Your task to perform on an android device: turn off notifications settings in the gmail app Image 0: 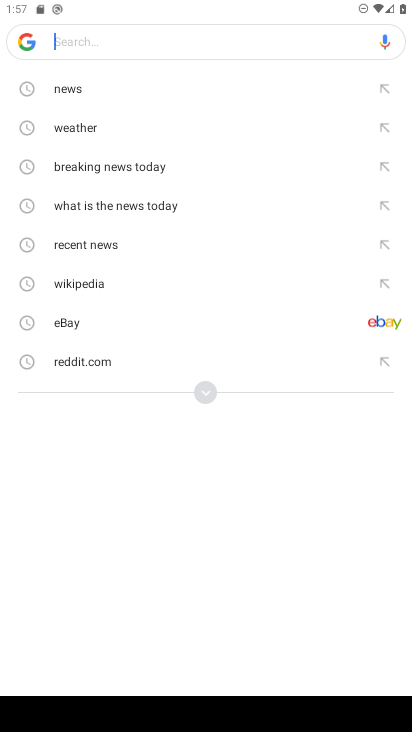
Step 0: press home button
Your task to perform on an android device: turn off notifications settings in the gmail app Image 1: 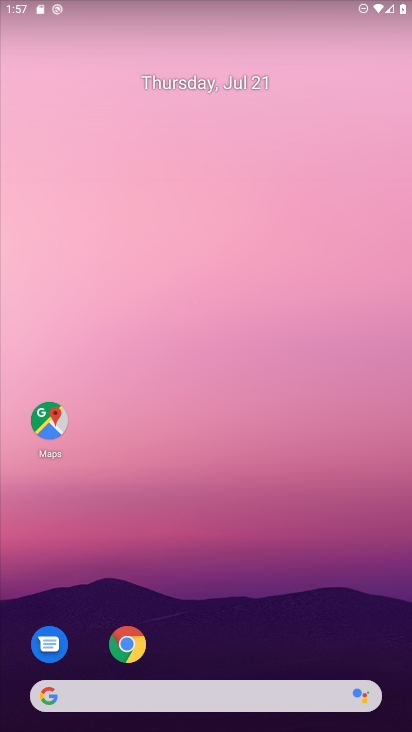
Step 1: drag from (219, 617) to (213, 7)
Your task to perform on an android device: turn off notifications settings in the gmail app Image 2: 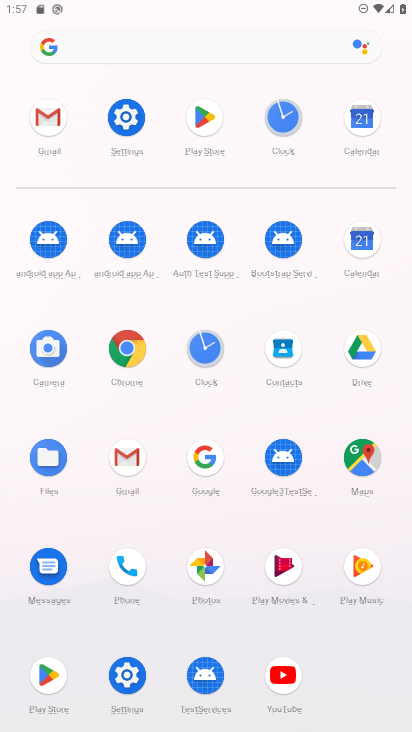
Step 2: click (40, 123)
Your task to perform on an android device: turn off notifications settings in the gmail app Image 3: 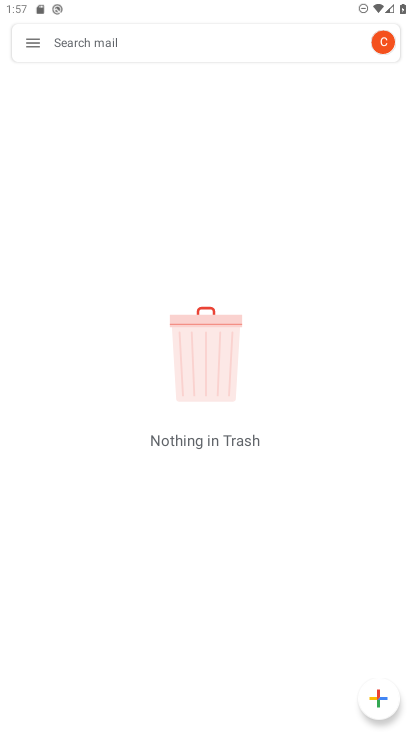
Step 3: click (38, 41)
Your task to perform on an android device: turn off notifications settings in the gmail app Image 4: 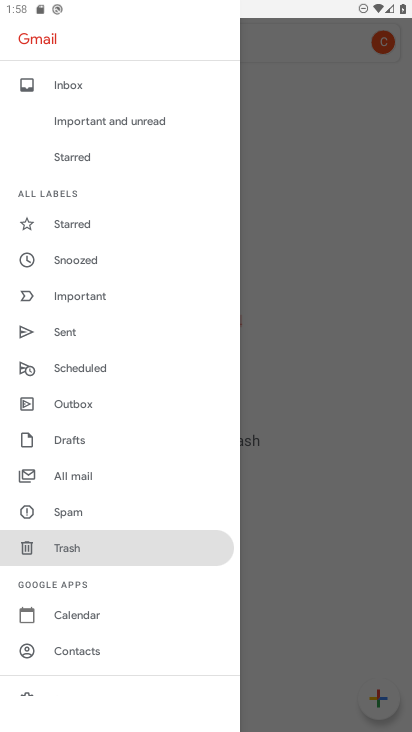
Step 4: drag from (55, 639) to (58, 271)
Your task to perform on an android device: turn off notifications settings in the gmail app Image 5: 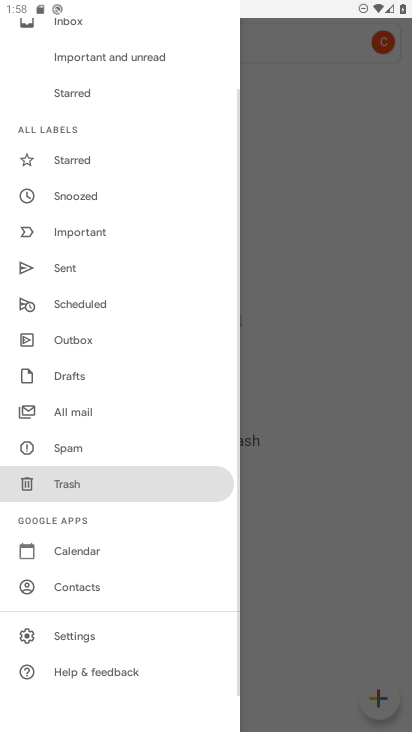
Step 5: click (56, 631)
Your task to perform on an android device: turn off notifications settings in the gmail app Image 6: 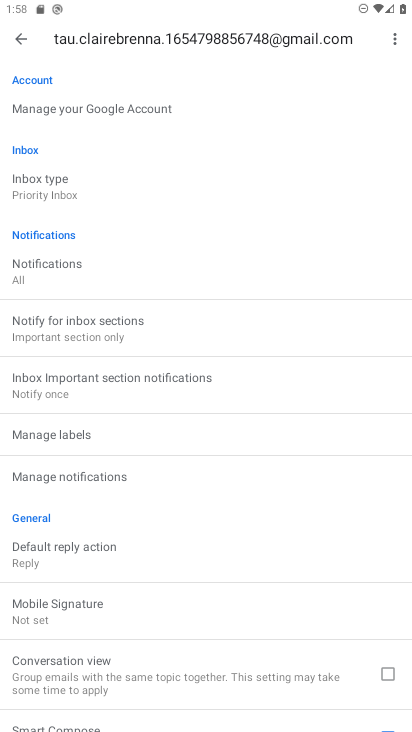
Step 6: click (61, 473)
Your task to perform on an android device: turn off notifications settings in the gmail app Image 7: 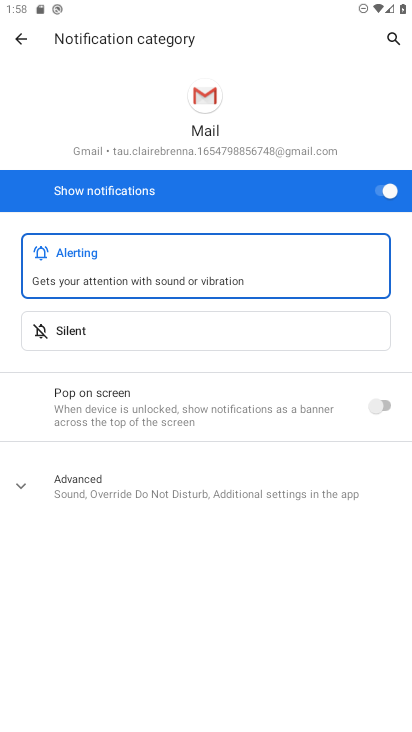
Step 7: click (378, 190)
Your task to perform on an android device: turn off notifications settings in the gmail app Image 8: 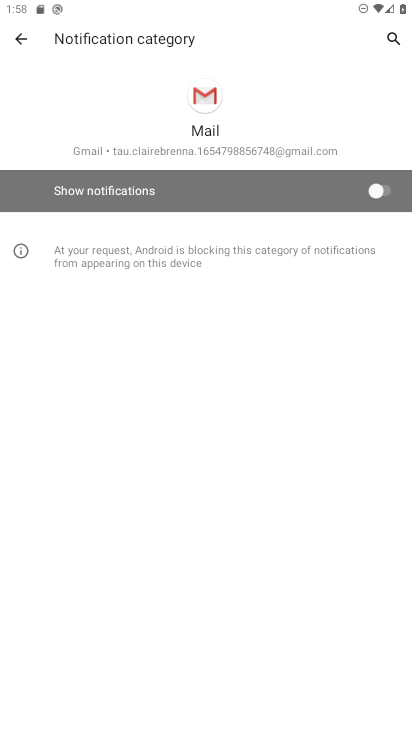
Step 8: task complete